Your task to perform on an android device: What's the weather going to be this weekend? Image 0: 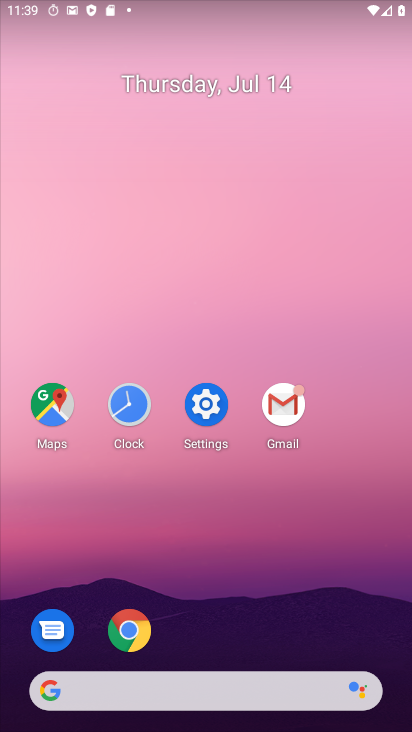
Step 0: drag from (133, 268) to (390, 230)
Your task to perform on an android device: What's the weather going to be this weekend? Image 1: 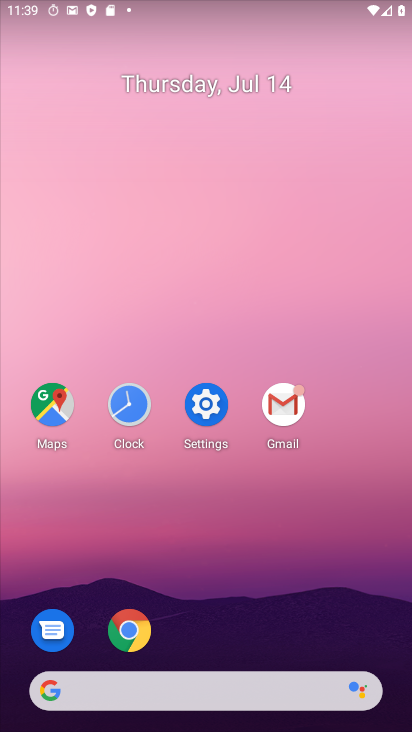
Step 1: drag from (24, 247) to (384, 207)
Your task to perform on an android device: What's the weather going to be this weekend? Image 2: 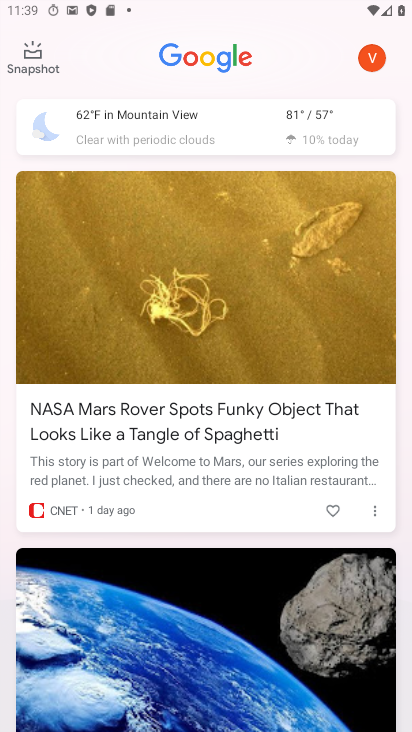
Step 2: click (305, 117)
Your task to perform on an android device: What's the weather going to be this weekend? Image 3: 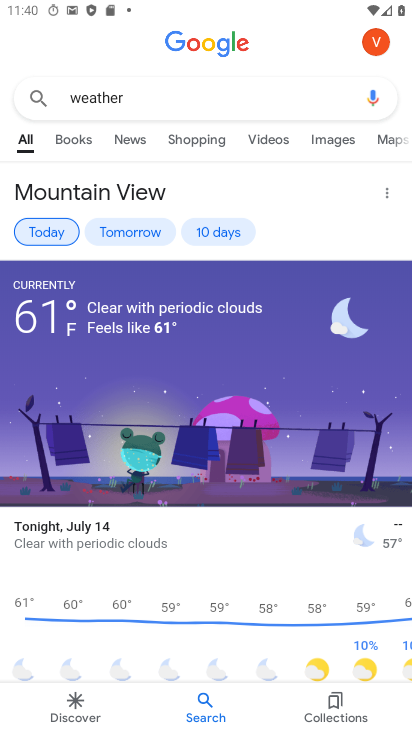
Step 3: click (201, 239)
Your task to perform on an android device: What's the weather going to be this weekend? Image 4: 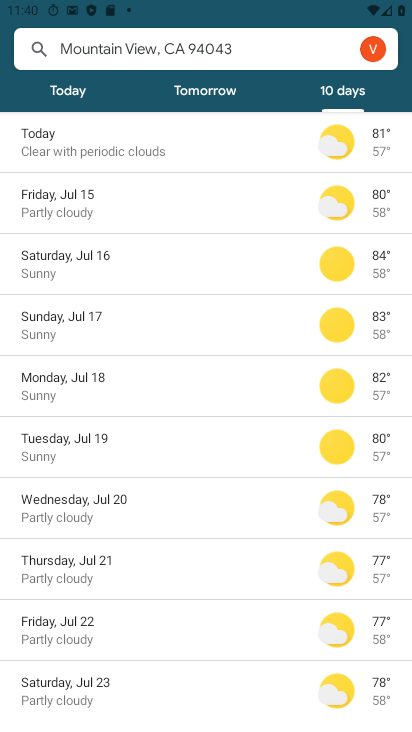
Step 4: task complete